Your task to perform on an android device: turn on location history Image 0: 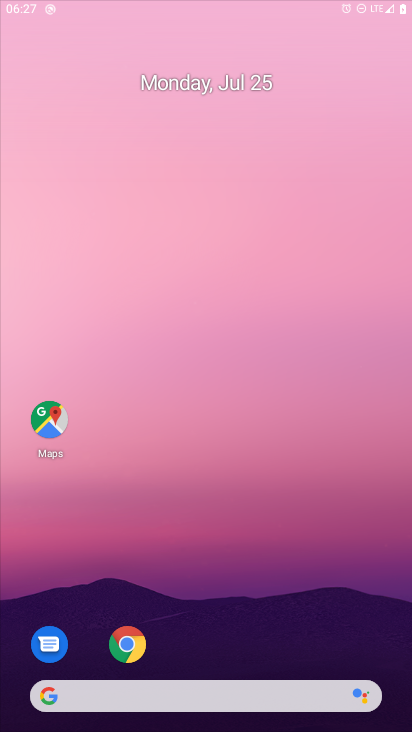
Step 0: press home button
Your task to perform on an android device: turn on location history Image 1: 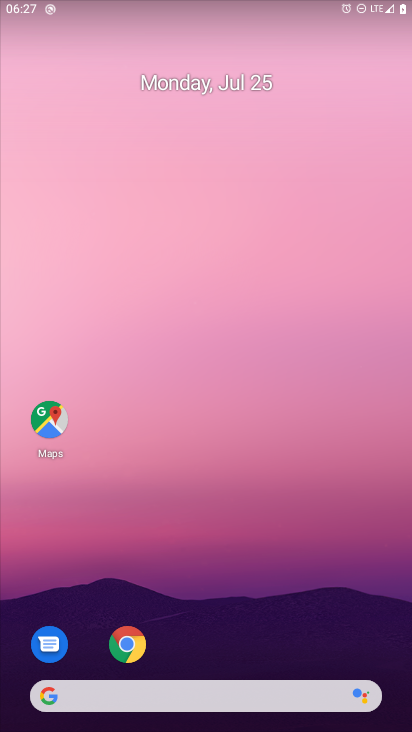
Step 1: drag from (237, 654) to (252, 132)
Your task to perform on an android device: turn on location history Image 2: 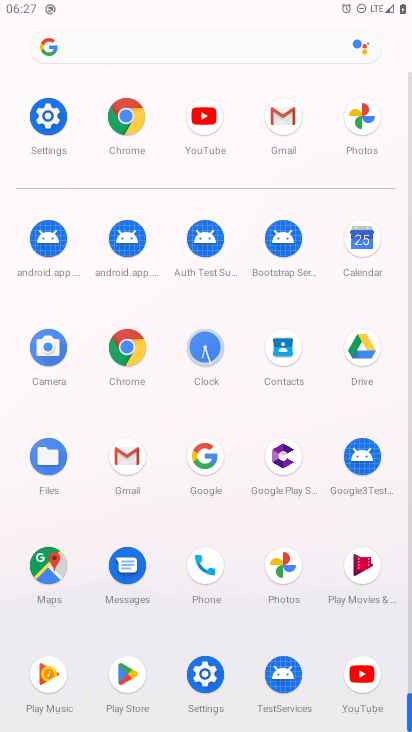
Step 2: click (36, 116)
Your task to perform on an android device: turn on location history Image 3: 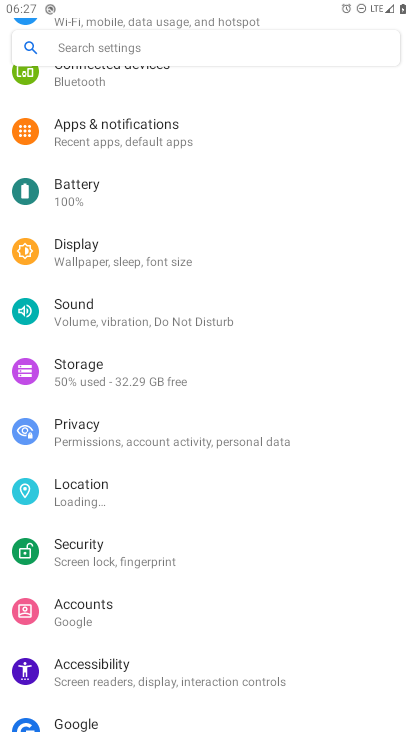
Step 3: click (88, 492)
Your task to perform on an android device: turn on location history Image 4: 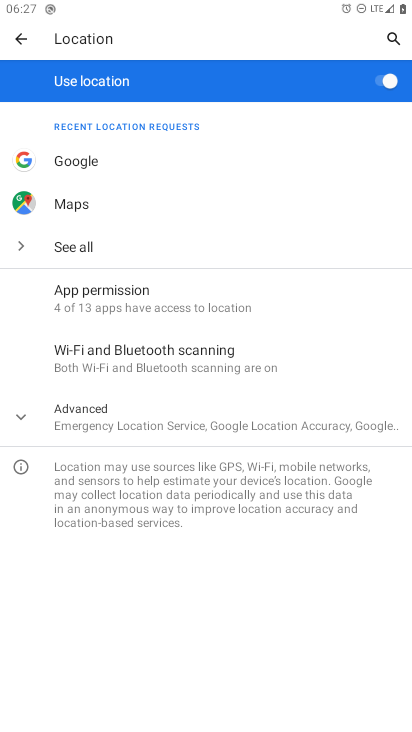
Step 4: click (95, 413)
Your task to perform on an android device: turn on location history Image 5: 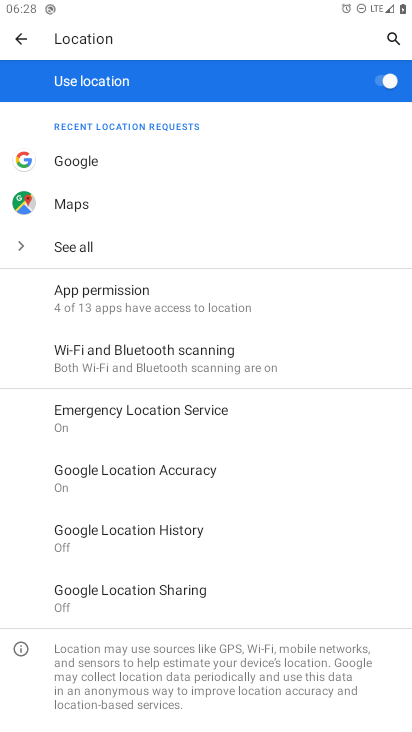
Step 5: click (142, 532)
Your task to perform on an android device: turn on location history Image 6: 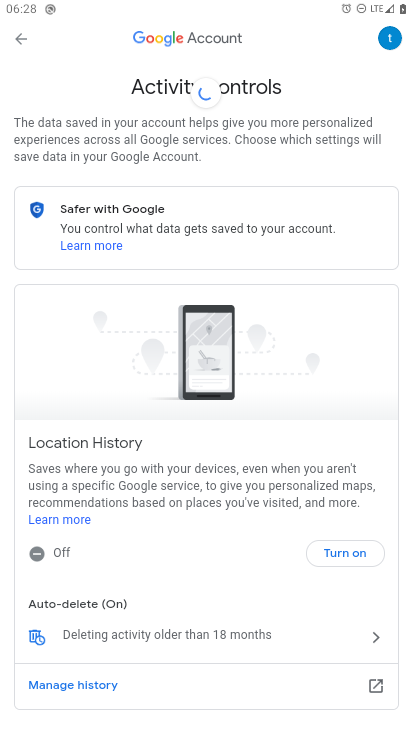
Step 6: click (346, 551)
Your task to perform on an android device: turn on location history Image 7: 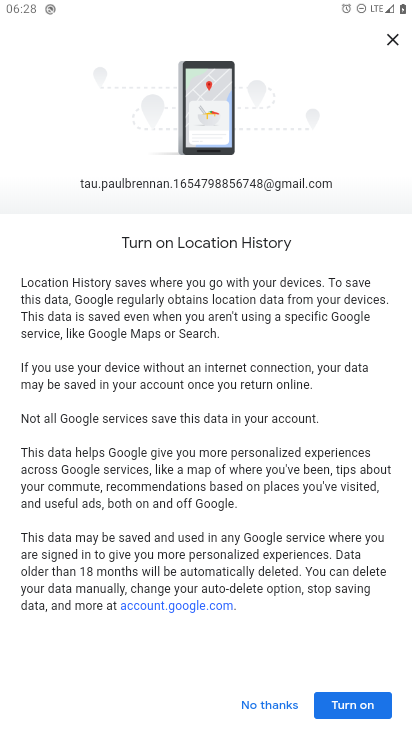
Step 7: click (357, 709)
Your task to perform on an android device: turn on location history Image 8: 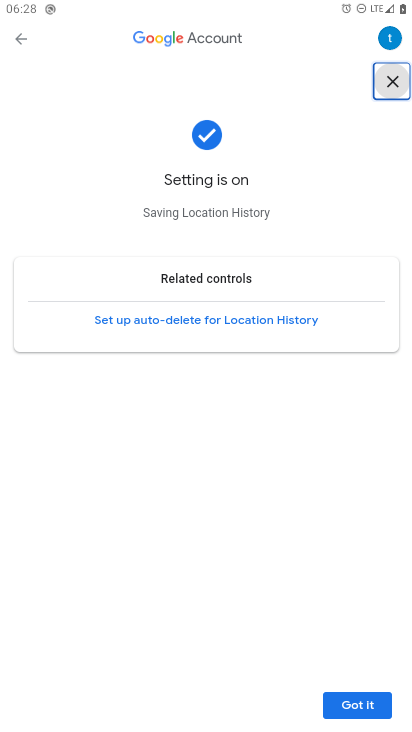
Step 8: click (359, 705)
Your task to perform on an android device: turn on location history Image 9: 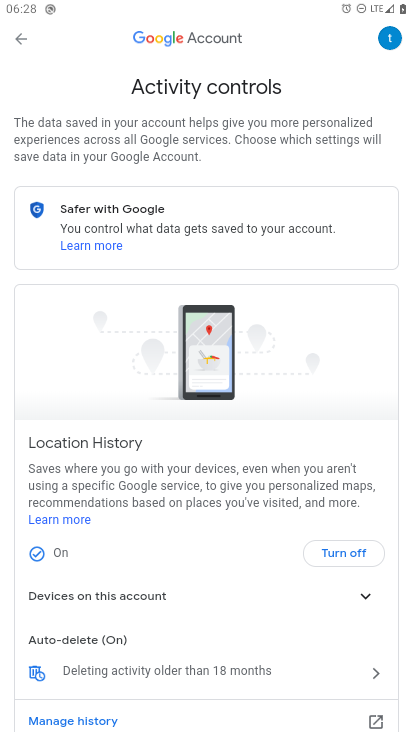
Step 9: task complete